Your task to perform on an android device: delete browsing data in the chrome app Image 0: 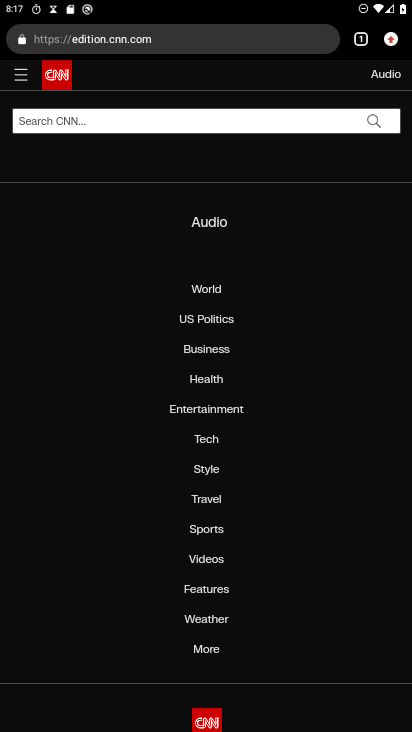
Step 0: drag from (388, 42) to (292, 511)
Your task to perform on an android device: delete browsing data in the chrome app Image 1: 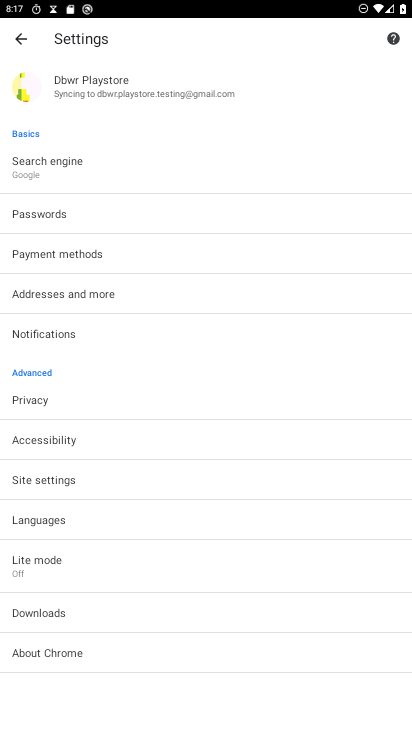
Step 1: click (66, 390)
Your task to perform on an android device: delete browsing data in the chrome app Image 2: 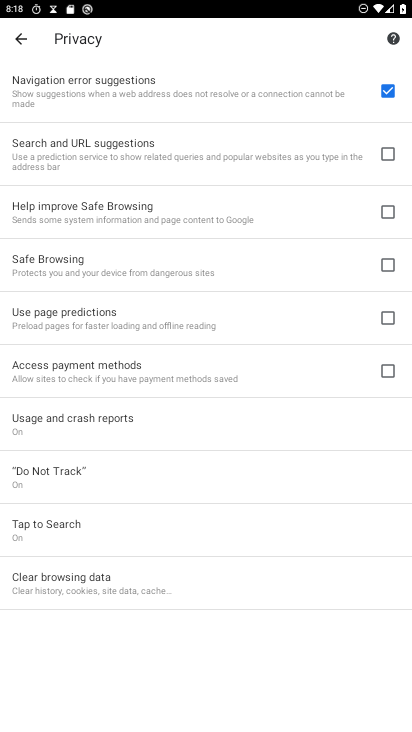
Step 2: click (117, 593)
Your task to perform on an android device: delete browsing data in the chrome app Image 3: 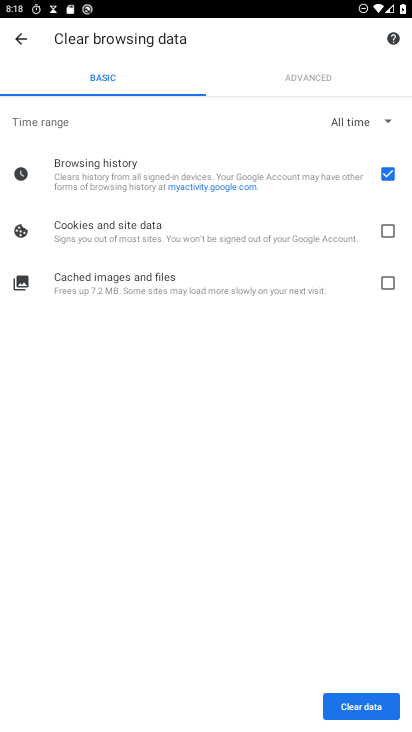
Step 3: click (362, 707)
Your task to perform on an android device: delete browsing data in the chrome app Image 4: 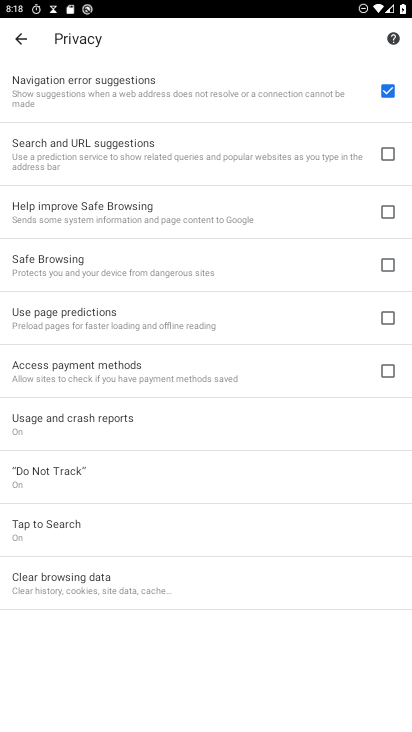
Step 4: task complete